Your task to perform on an android device: Open Chrome and go to settings Image 0: 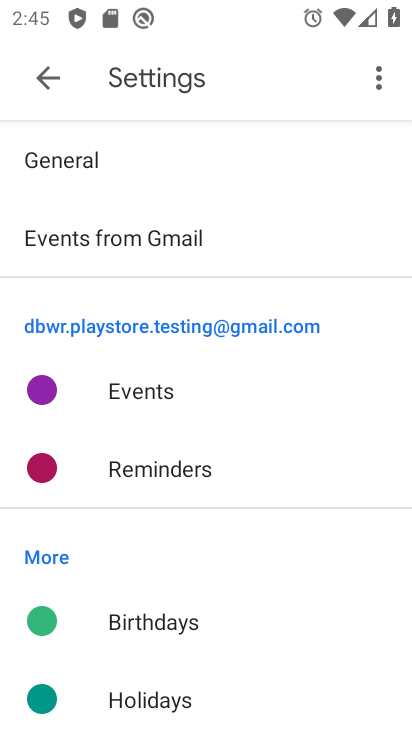
Step 0: press home button
Your task to perform on an android device: Open Chrome and go to settings Image 1: 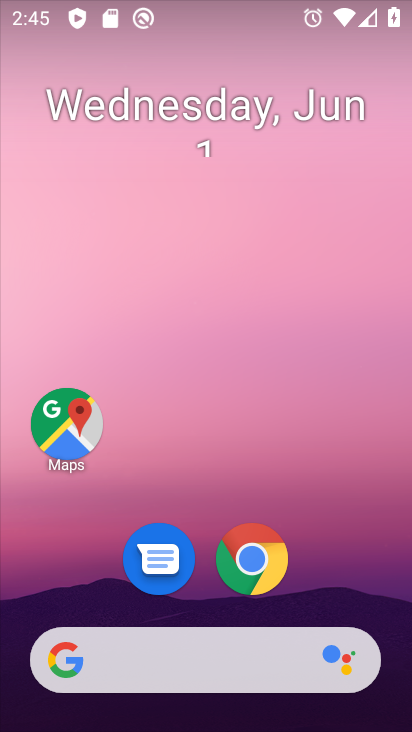
Step 1: click (251, 554)
Your task to perform on an android device: Open Chrome and go to settings Image 2: 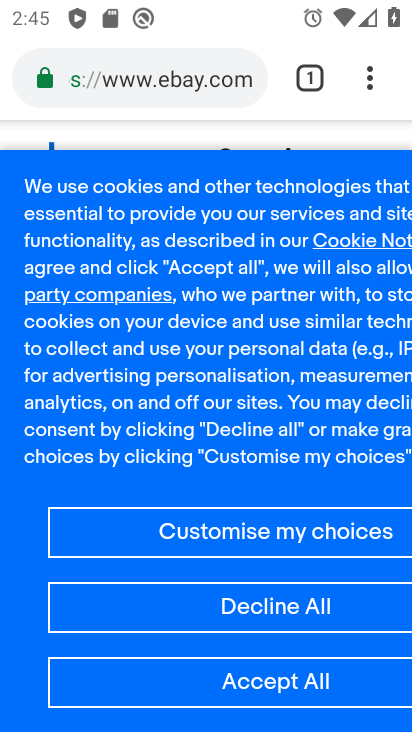
Step 2: click (373, 92)
Your task to perform on an android device: Open Chrome and go to settings Image 3: 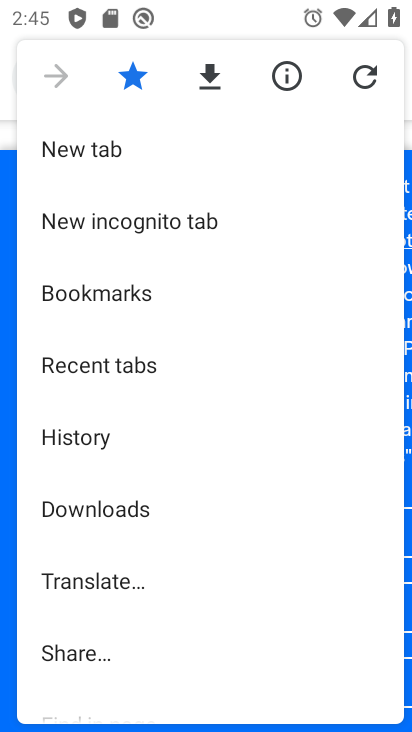
Step 3: drag from (207, 667) to (212, 253)
Your task to perform on an android device: Open Chrome and go to settings Image 4: 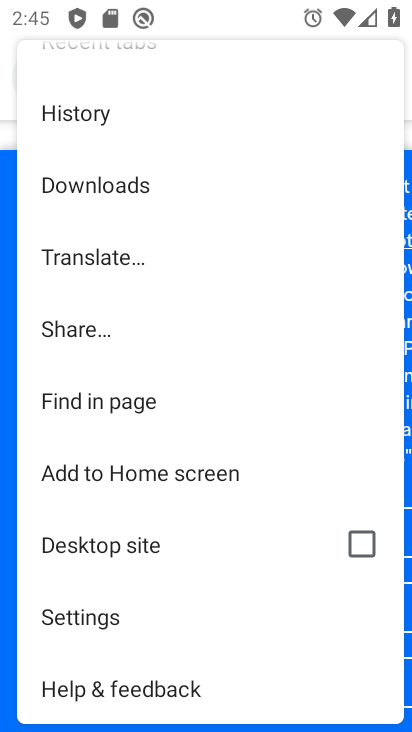
Step 4: click (159, 606)
Your task to perform on an android device: Open Chrome and go to settings Image 5: 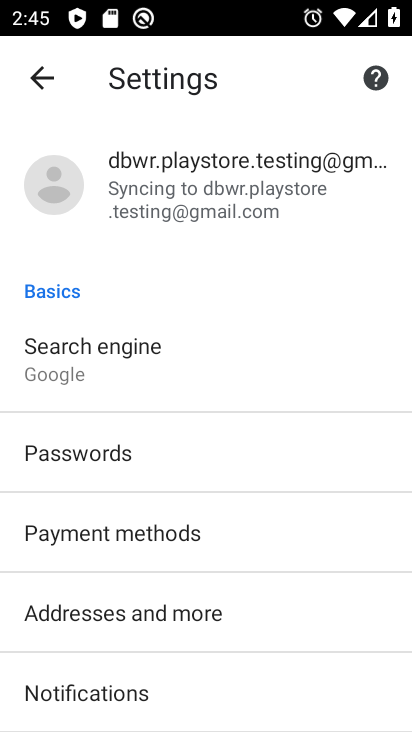
Step 5: task complete